Your task to perform on an android device: Go to Maps Image 0: 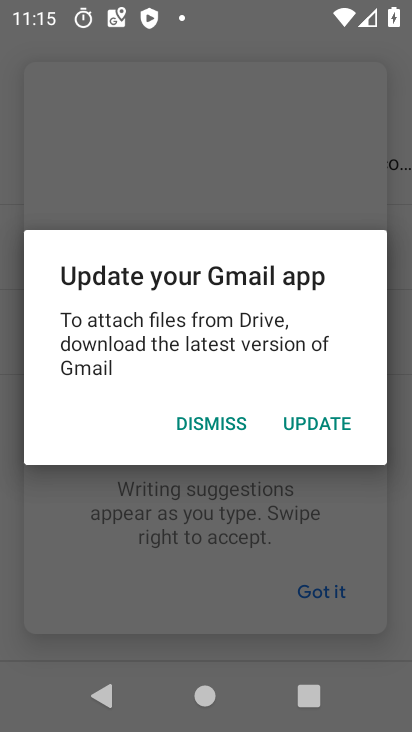
Step 0: press home button
Your task to perform on an android device: Go to Maps Image 1: 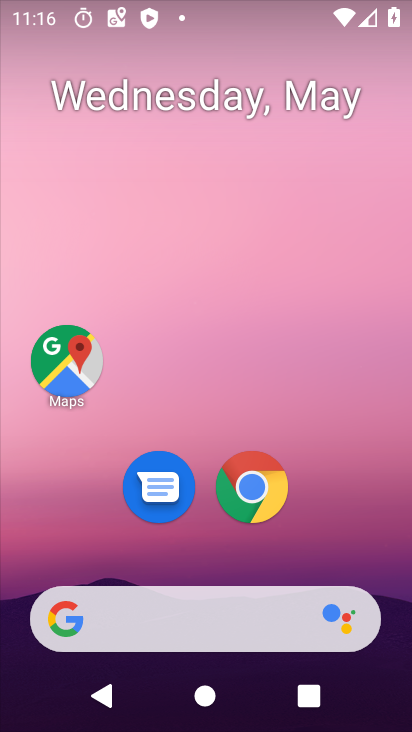
Step 1: drag from (391, 660) to (316, 10)
Your task to perform on an android device: Go to Maps Image 2: 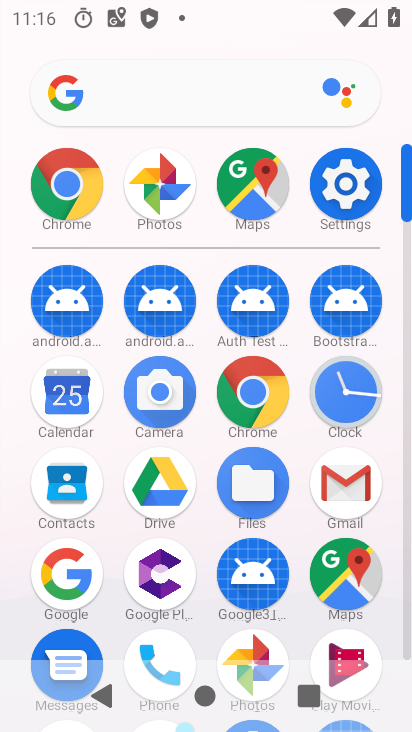
Step 2: click (343, 589)
Your task to perform on an android device: Go to Maps Image 3: 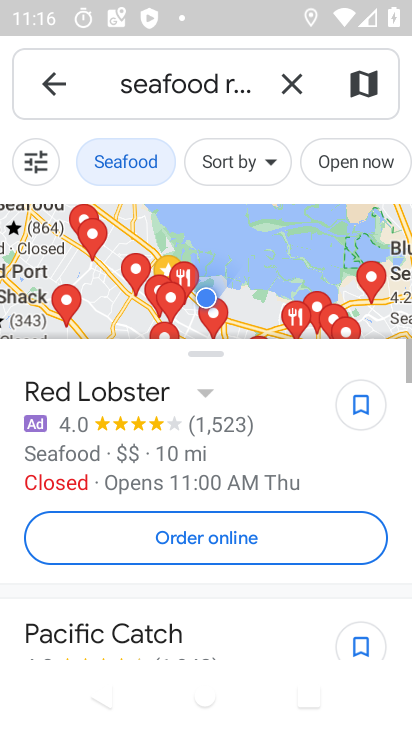
Step 3: task complete